Your task to perform on an android device: Open wifi settings Image 0: 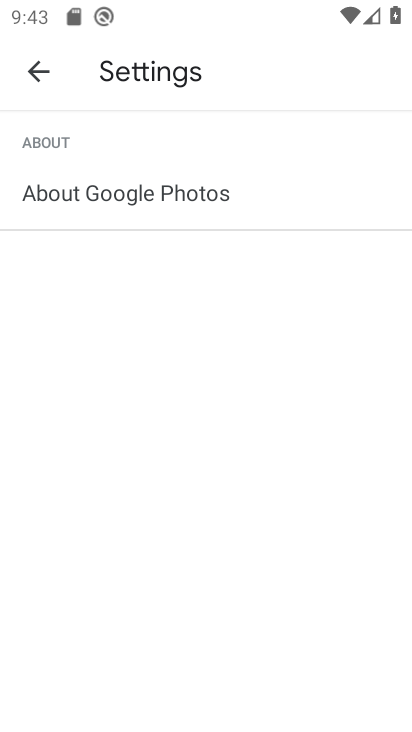
Step 0: press home button
Your task to perform on an android device: Open wifi settings Image 1: 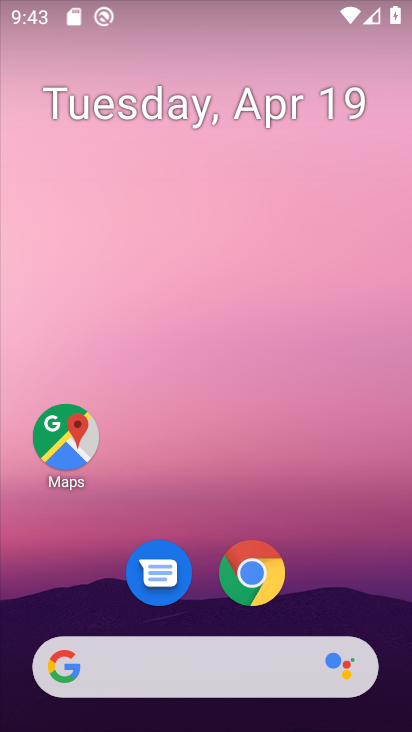
Step 1: drag from (205, 462) to (224, 2)
Your task to perform on an android device: Open wifi settings Image 2: 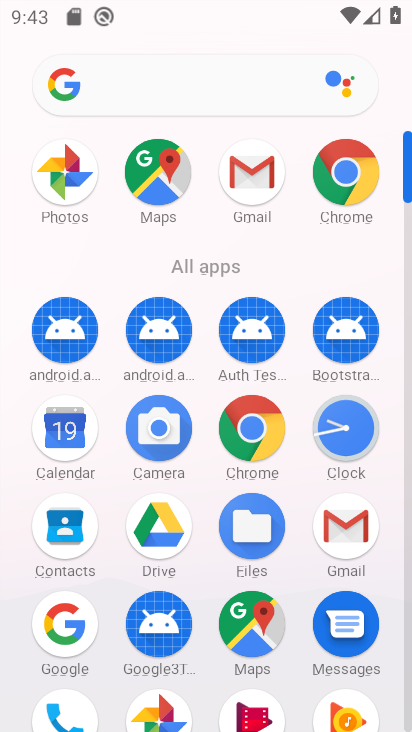
Step 2: drag from (203, 557) to (214, 154)
Your task to perform on an android device: Open wifi settings Image 3: 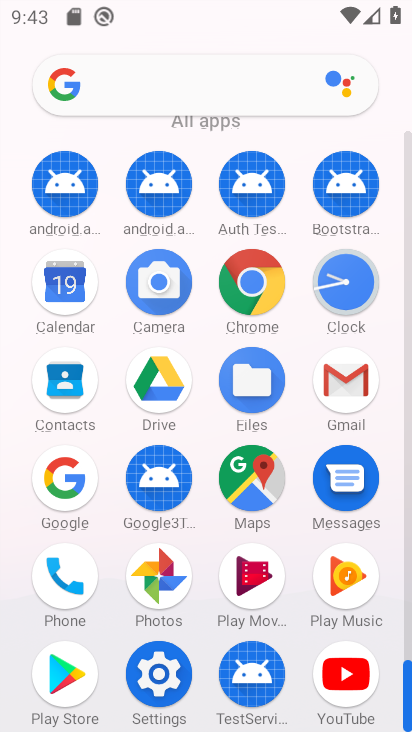
Step 3: click (159, 669)
Your task to perform on an android device: Open wifi settings Image 4: 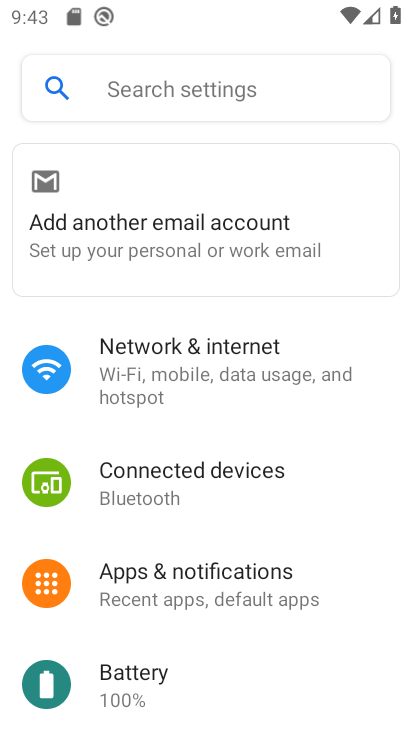
Step 4: click (180, 368)
Your task to perform on an android device: Open wifi settings Image 5: 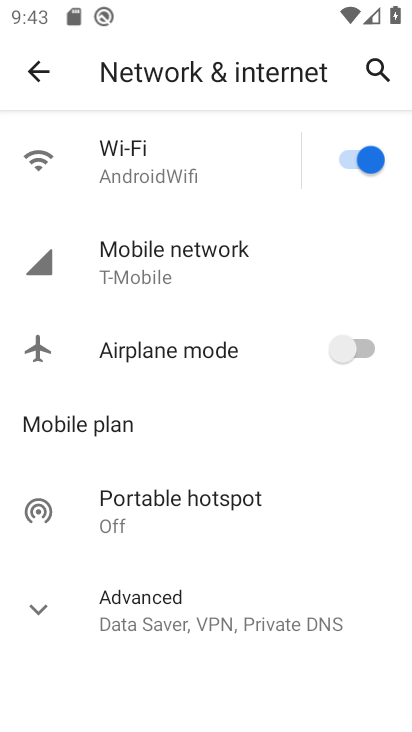
Step 5: click (196, 152)
Your task to perform on an android device: Open wifi settings Image 6: 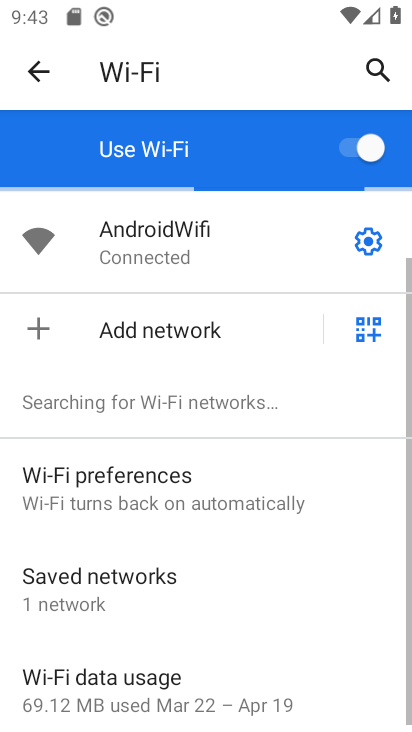
Step 6: task complete